Your task to perform on an android device: set the stopwatch Image 0: 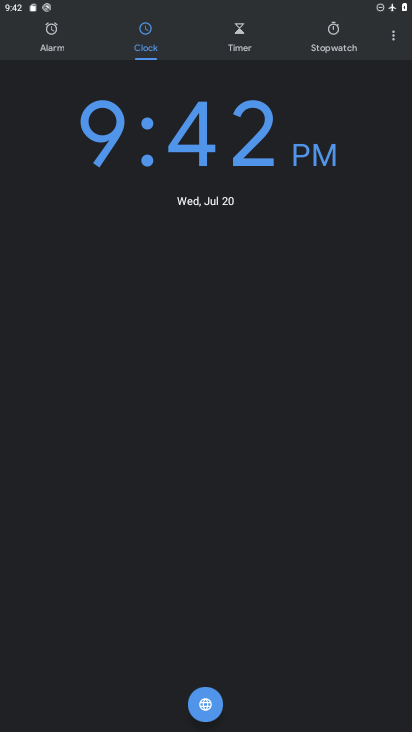
Step 0: click (312, 45)
Your task to perform on an android device: set the stopwatch Image 1: 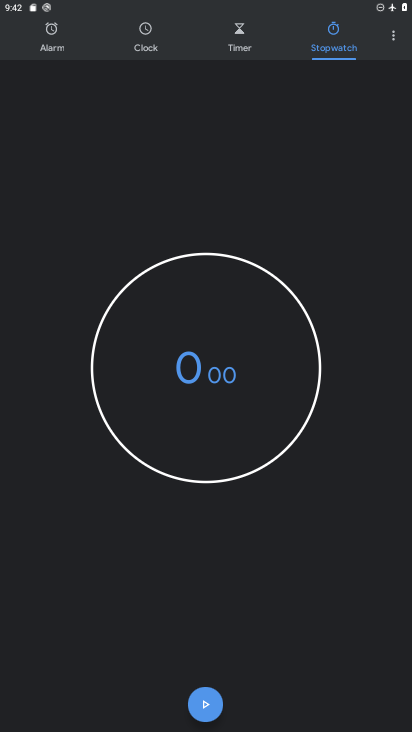
Step 1: click (215, 687)
Your task to perform on an android device: set the stopwatch Image 2: 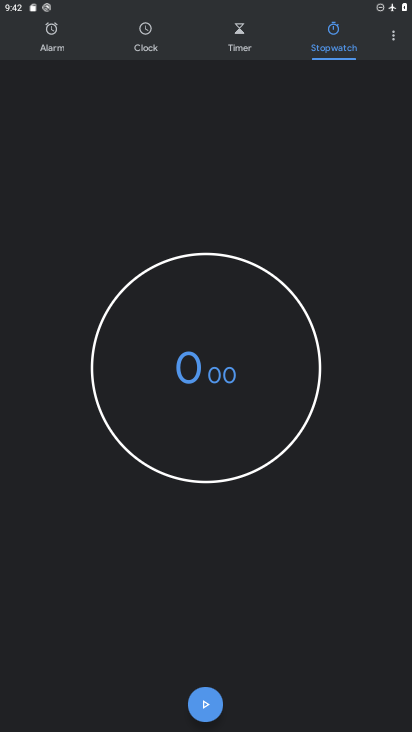
Step 2: click (200, 703)
Your task to perform on an android device: set the stopwatch Image 3: 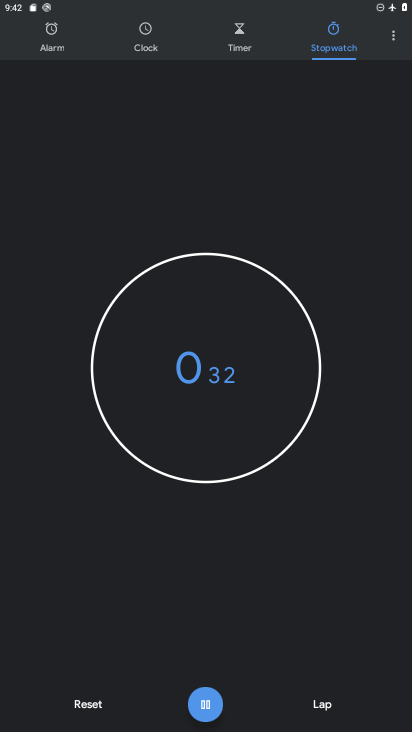
Step 3: click (200, 700)
Your task to perform on an android device: set the stopwatch Image 4: 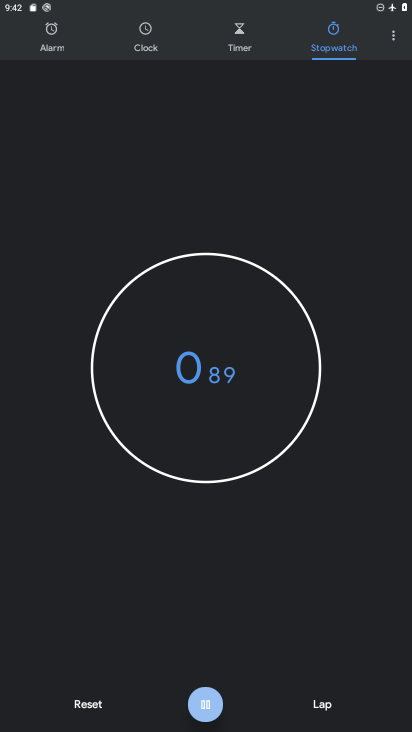
Step 4: click (200, 700)
Your task to perform on an android device: set the stopwatch Image 5: 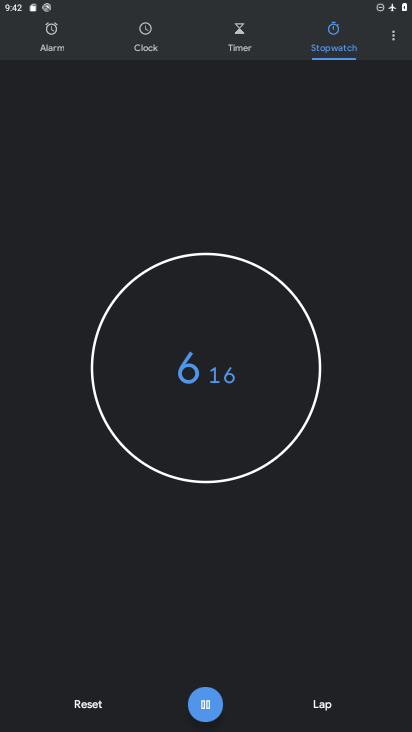
Step 5: click (201, 695)
Your task to perform on an android device: set the stopwatch Image 6: 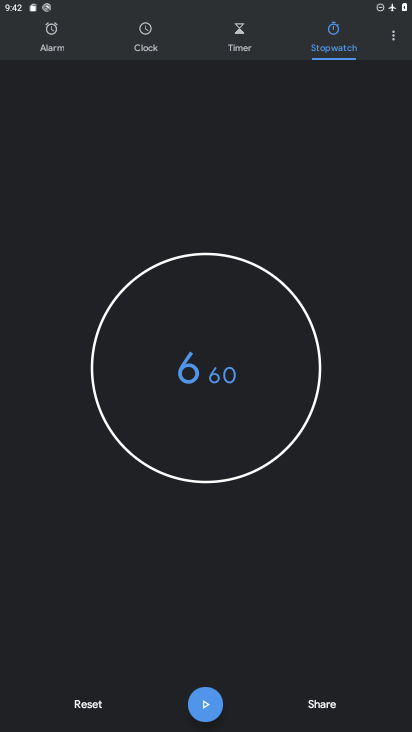
Step 6: task complete